Your task to perform on an android device: delete a single message in the gmail app Image 0: 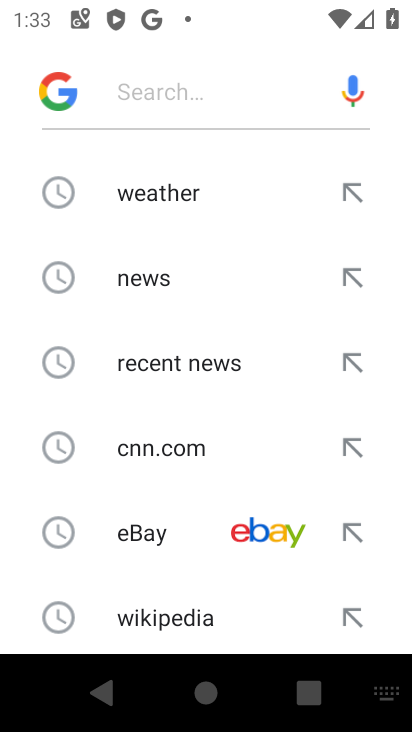
Step 0: press home button
Your task to perform on an android device: delete a single message in the gmail app Image 1: 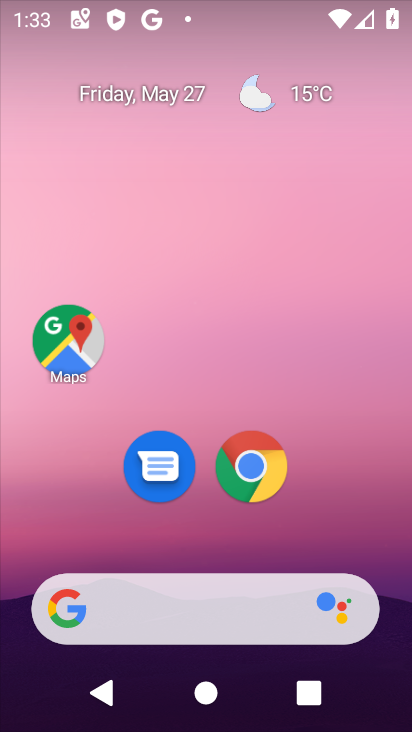
Step 1: drag from (79, 579) to (220, 96)
Your task to perform on an android device: delete a single message in the gmail app Image 2: 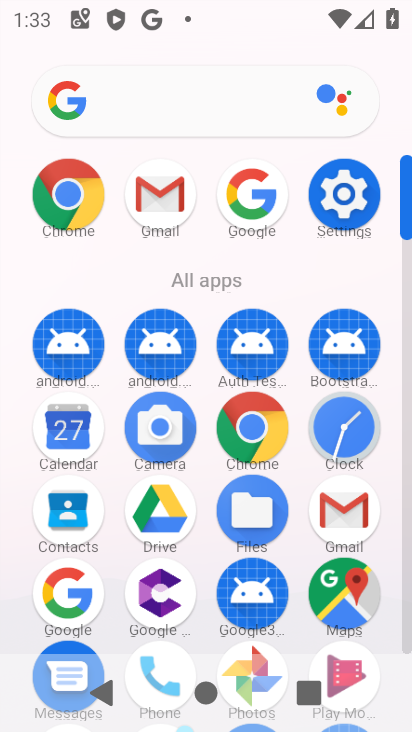
Step 2: drag from (167, 619) to (248, 352)
Your task to perform on an android device: delete a single message in the gmail app Image 3: 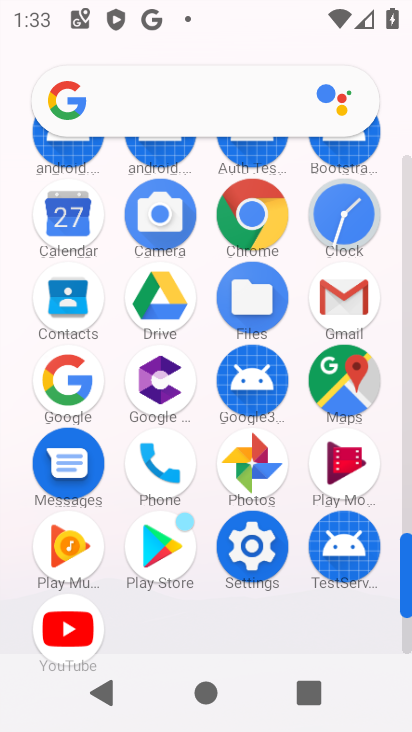
Step 3: click (342, 294)
Your task to perform on an android device: delete a single message in the gmail app Image 4: 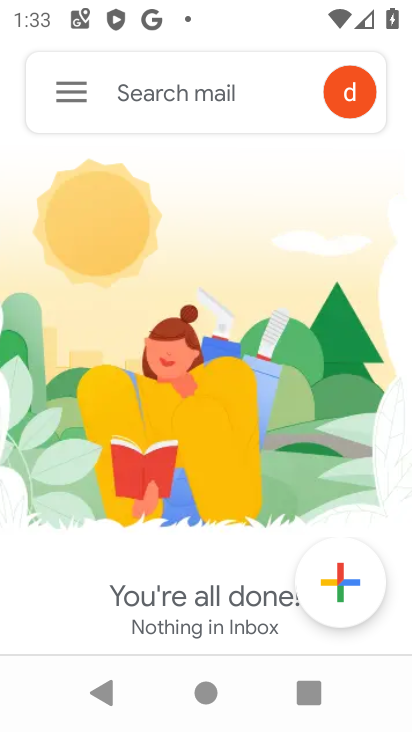
Step 4: click (71, 95)
Your task to perform on an android device: delete a single message in the gmail app Image 5: 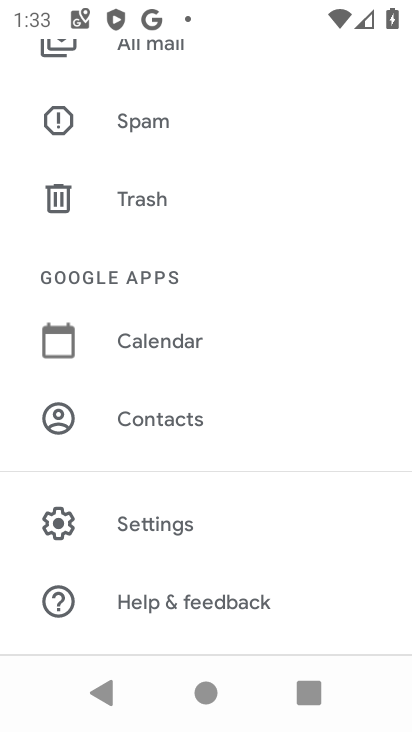
Step 5: drag from (236, 183) to (227, 528)
Your task to perform on an android device: delete a single message in the gmail app Image 6: 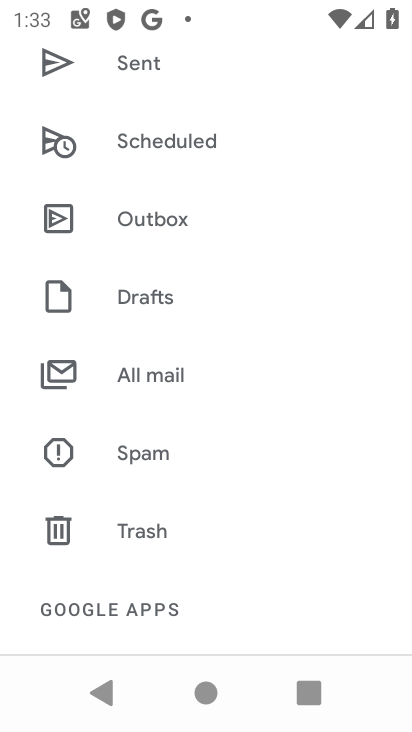
Step 6: click (208, 375)
Your task to perform on an android device: delete a single message in the gmail app Image 7: 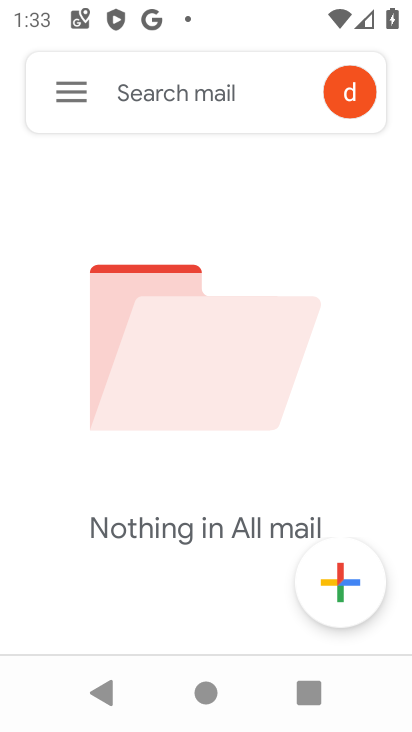
Step 7: task complete